Your task to perform on an android device: What's the weather? Image 0: 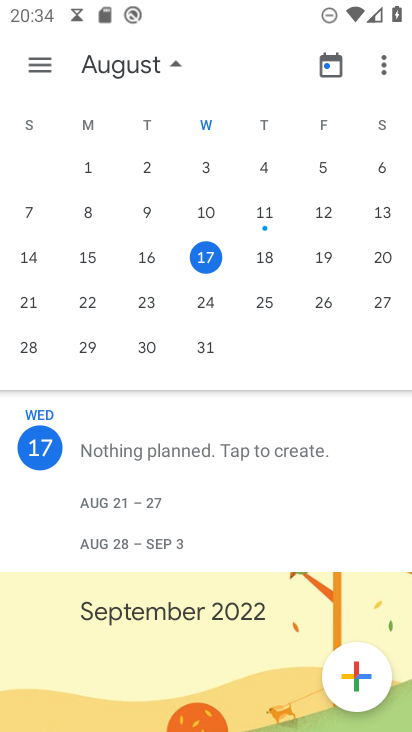
Step 0: press home button
Your task to perform on an android device: What's the weather? Image 1: 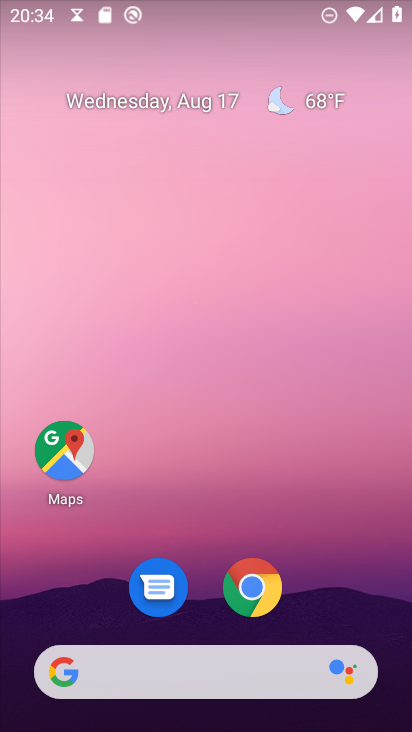
Step 1: click (142, 675)
Your task to perform on an android device: What's the weather? Image 2: 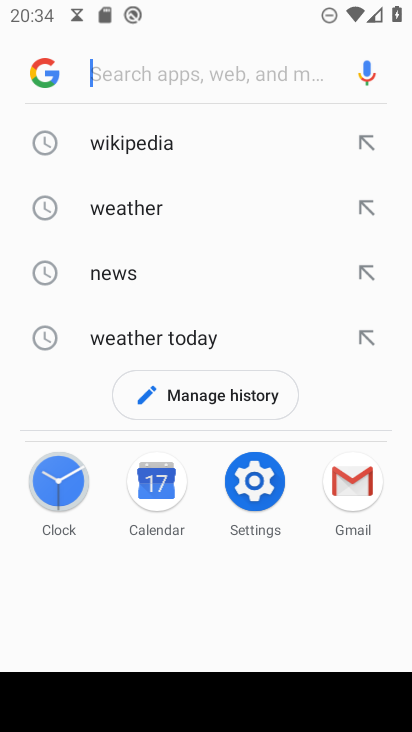
Step 2: type "What's the weather?"
Your task to perform on an android device: What's the weather? Image 3: 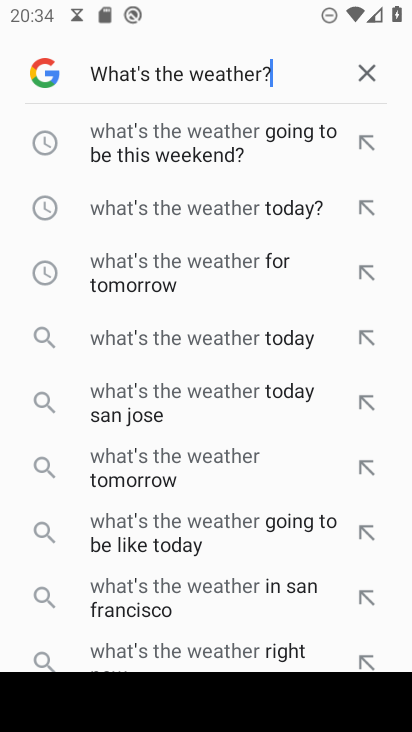
Step 3: type ""
Your task to perform on an android device: What's the weather? Image 4: 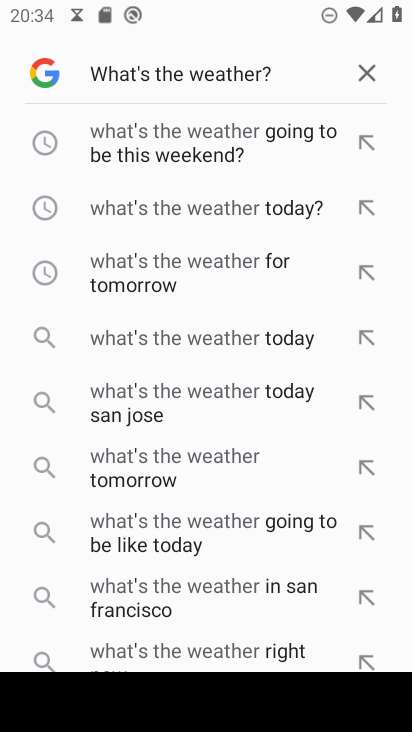
Step 4: task complete